Your task to perform on an android device: open a bookmark in the chrome app Image 0: 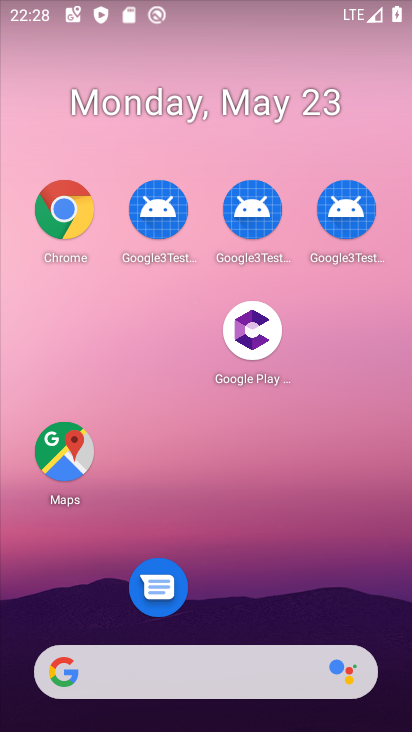
Step 0: click (45, 210)
Your task to perform on an android device: open a bookmark in the chrome app Image 1: 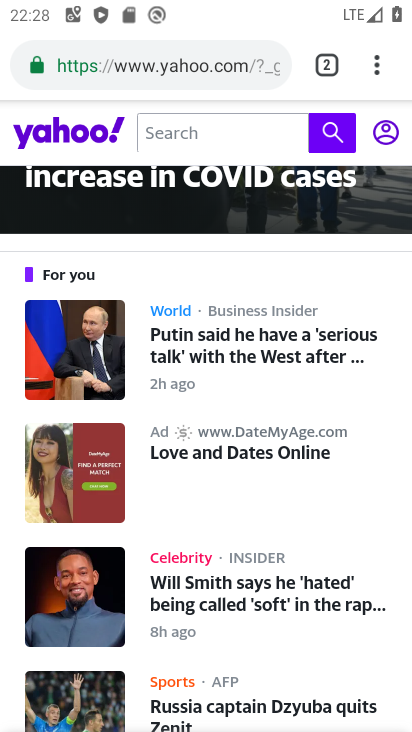
Step 1: click (371, 63)
Your task to perform on an android device: open a bookmark in the chrome app Image 2: 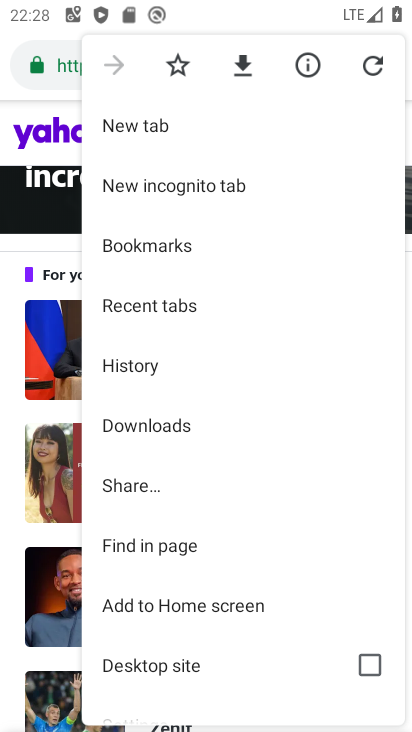
Step 2: drag from (229, 474) to (265, 239)
Your task to perform on an android device: open a bookmark in the chrome app Image 3: 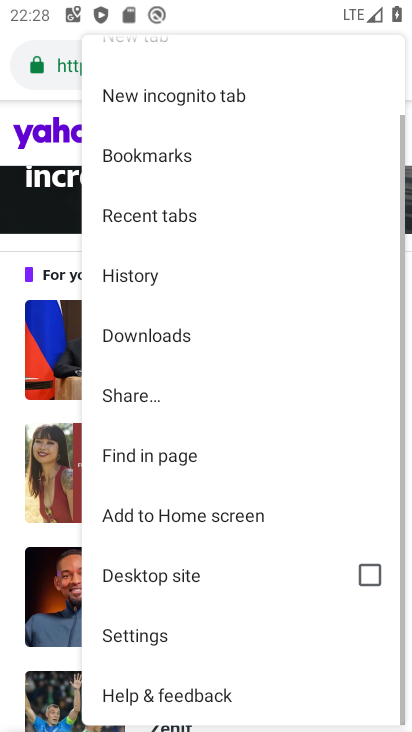
Step 3: drag from (270, 212) to (242, 551)
Your task to perform on an android device: open a bookmark in the chrome app Image 4: 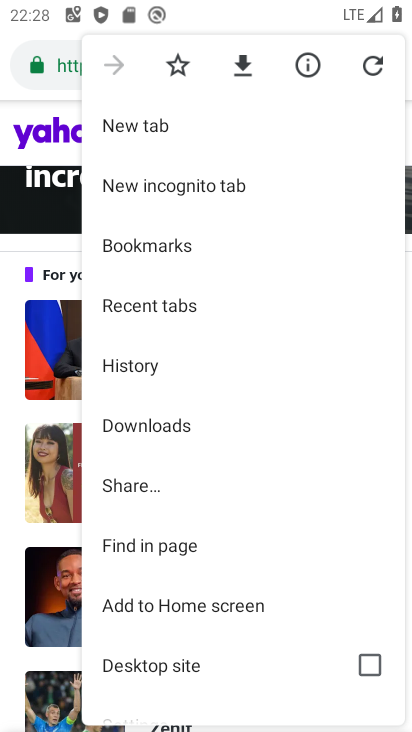
Step 4: click (215, 221)
Your task to perform on an android device: open a bookmark in the chrome app Image 5: 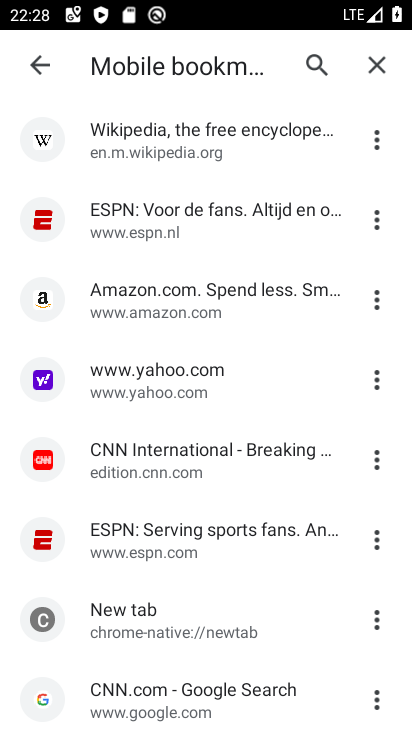
Step 5: task complete